Your task to perform on an android device: Open Amazon Image 0: 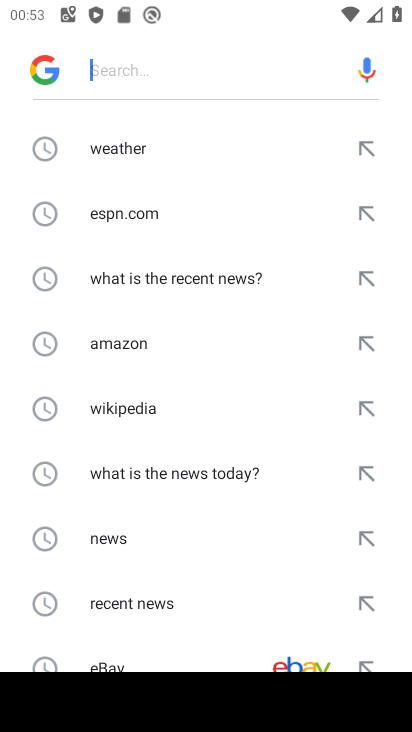
Step 0: click (128, 76)
Your task to perform on an android device: Open Amazon Image 1: 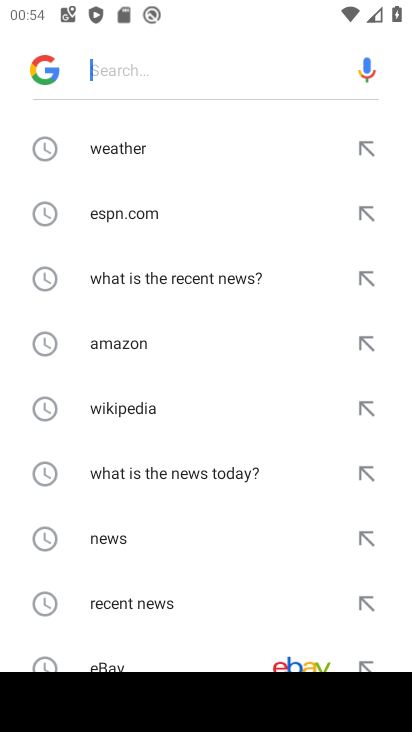
Step 1: type "Amazon"
Your task to perform on an android device: Open Amazon Image 2: 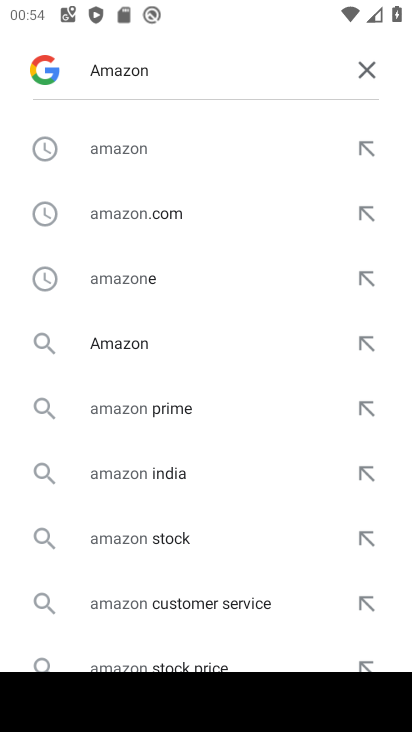
Step 2: click (123, 144)
Your task to perform on an android device: Open Amazon Image 3: 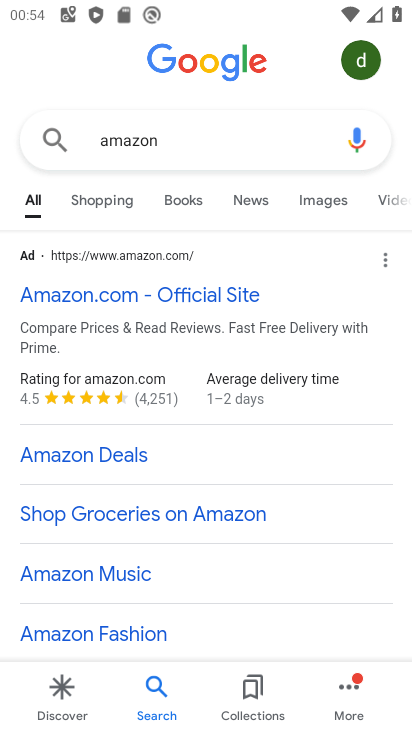
Step 3: task complete